Your task to perform on an android device: Open eBay Image 0: 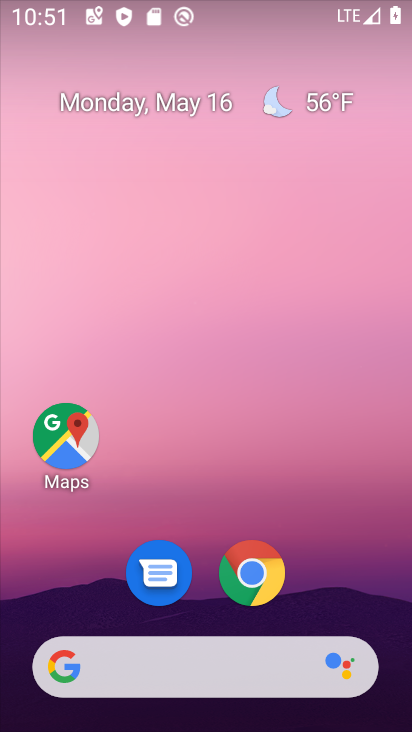
Step 0: click (246, 662)
Your task to perform on an android device: Open eBay Image 1: 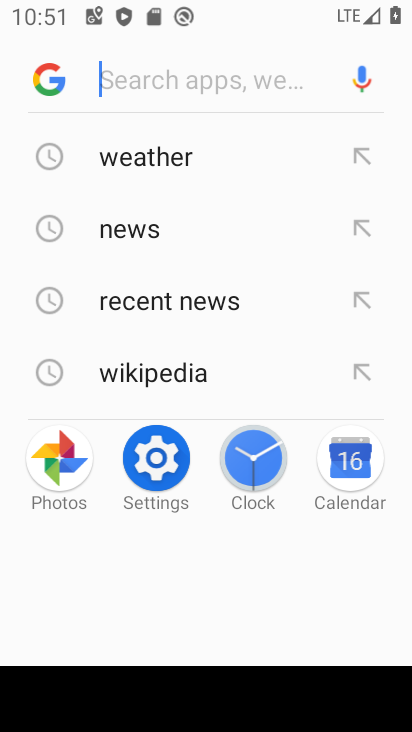
Step 1: type "ebay"
Your task to perform on an android device: Open eBay Image 2: 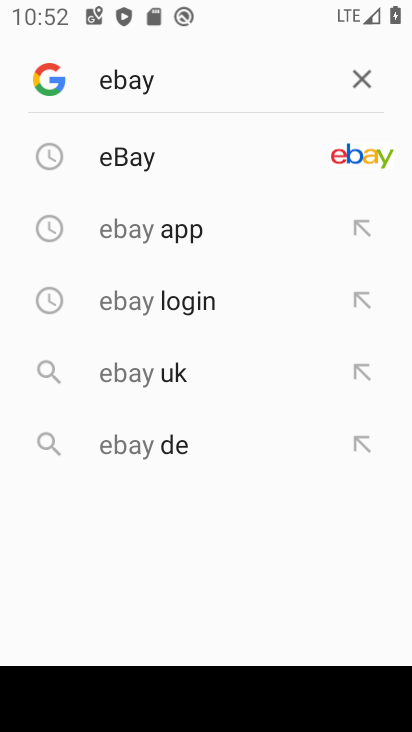
Step 2: click (370, 152)
Your task to perform on an android device: Open eBay Image 3: 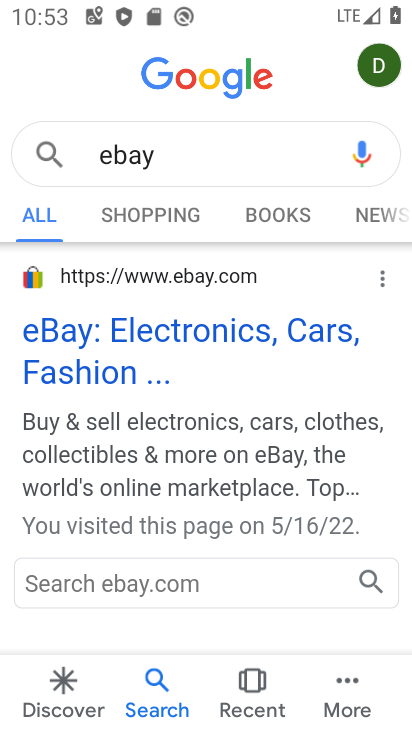
Step 3: click (162, 273)
Your task to perform on an android device: Open eBay Image 4: 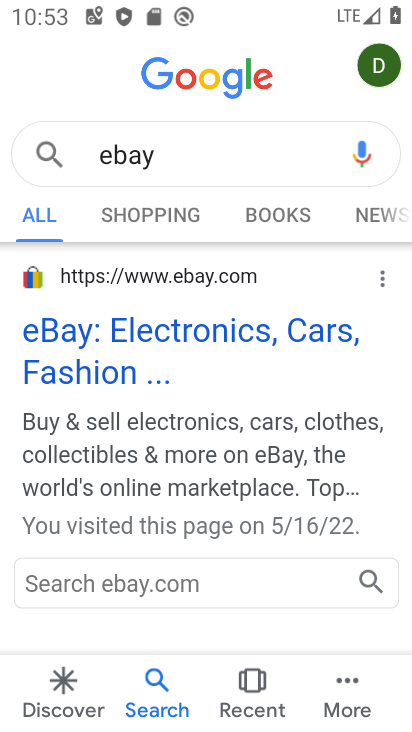
Step 4: click (140, 272)
Your task to perform on an android device: Open eBay Image 5: 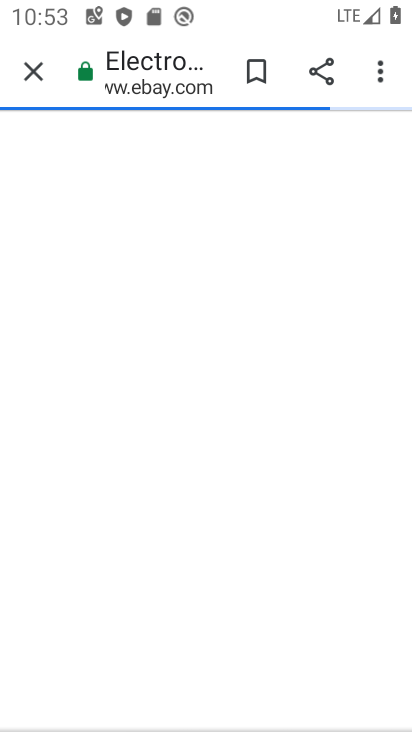
Step 5: task complete